Your task to perform on an android device: toggle notification dots Image 0: 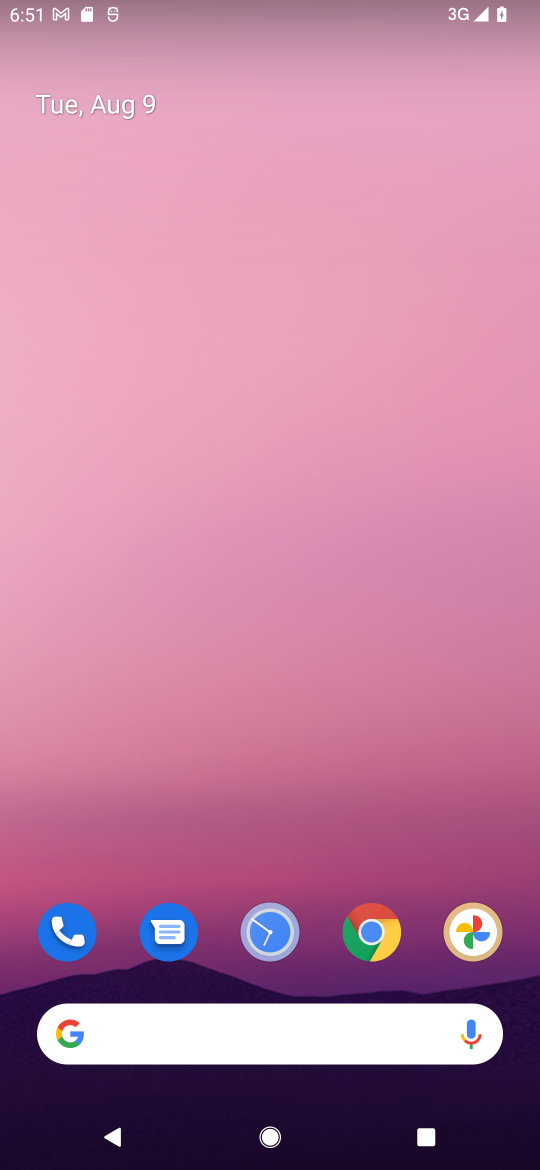
Step 0: drag from (205, 784) to (195, 305)
Your task to perform on an android device: toggle notification dots Image 1: 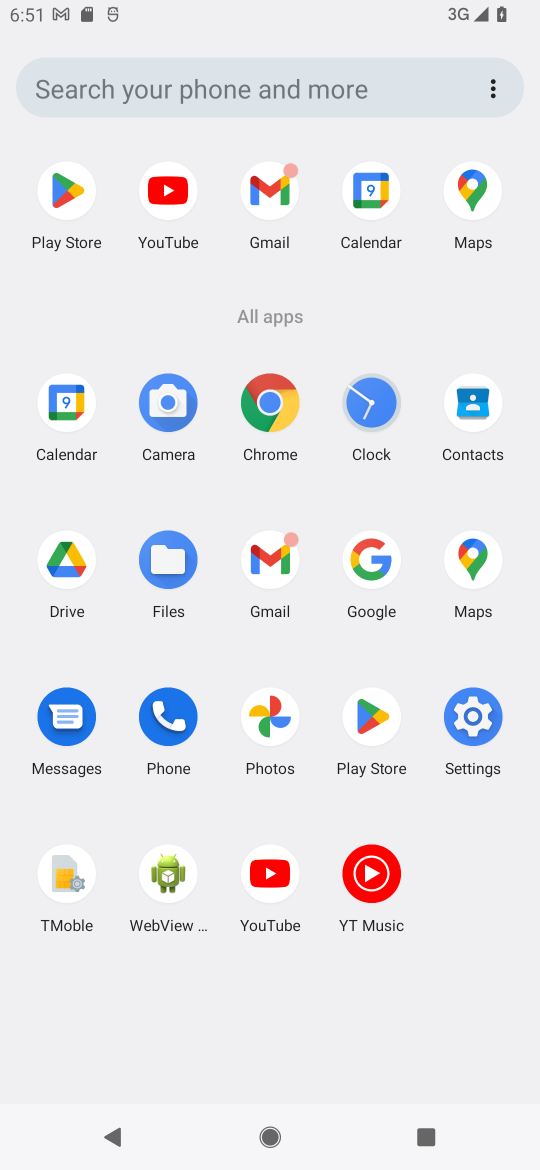
Step 1: click (479, 759)
Your task to perform on an android device: toggle notification dots Image 2: 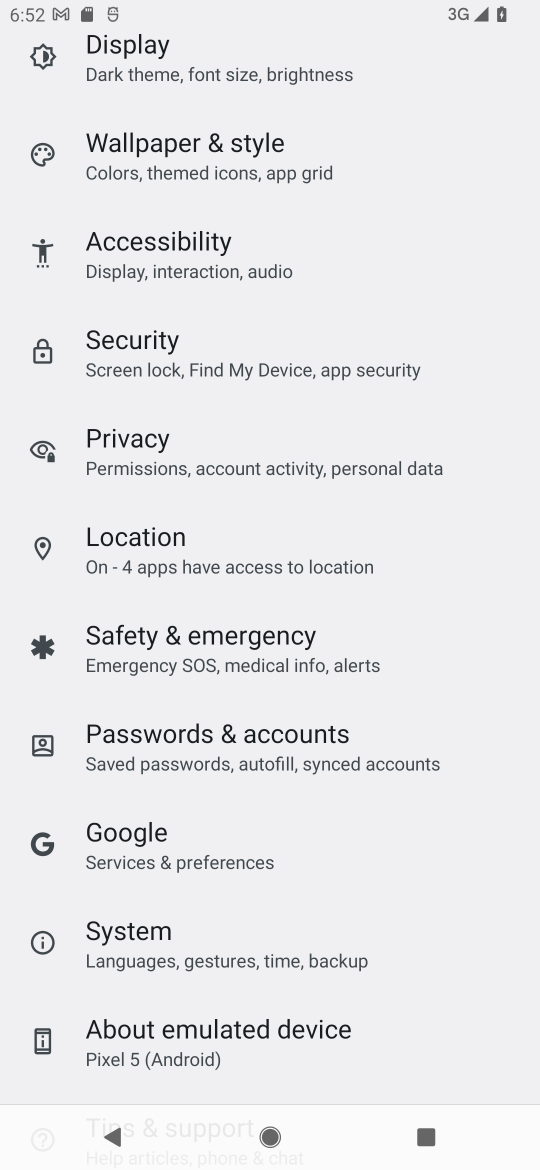
Step 2: drag from (361, 342) to (324, 681)
Your task to perform on an android device: toggle notification dots Image 3: 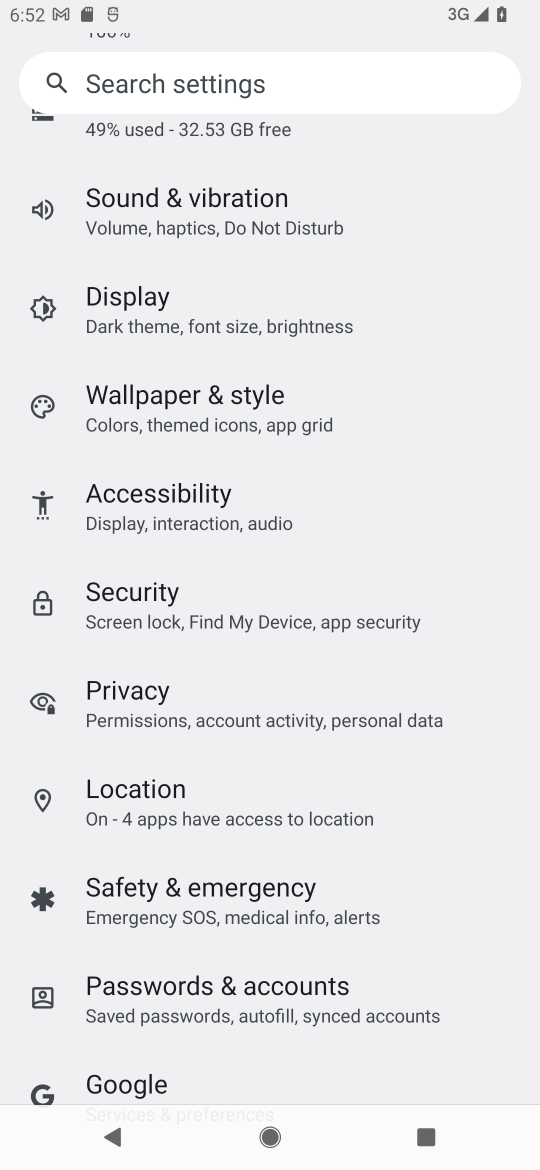
Step 3: drag from (296, 304) to (324, 602)
Your task to perform on an android device: toggle notification dots Image 4: 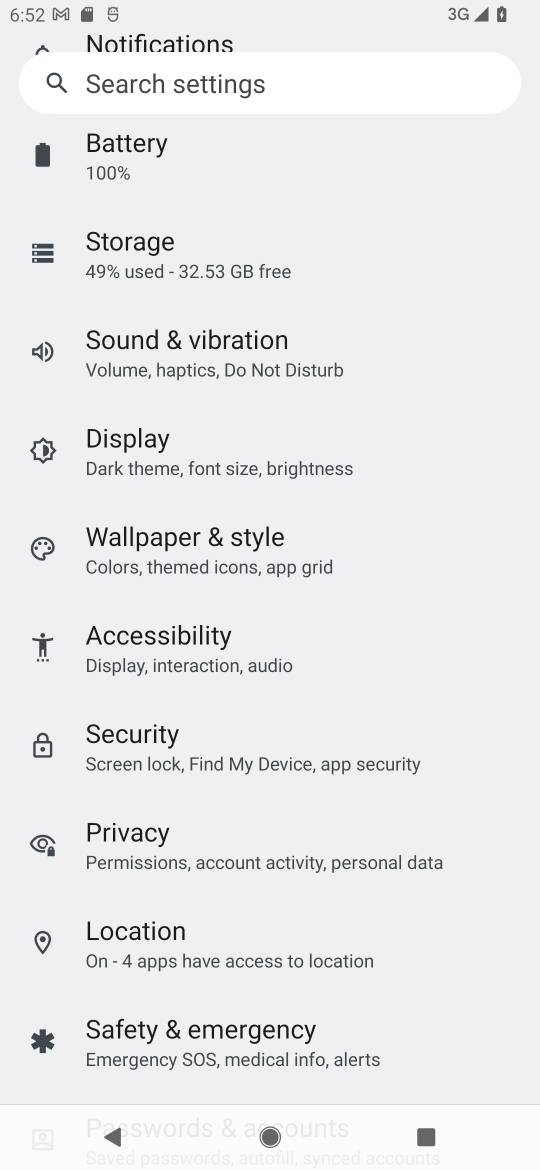
Step 4: drag from (295, 330) to (317, 691)
Your task to perform on an android device: toggle notification dots Image 5: 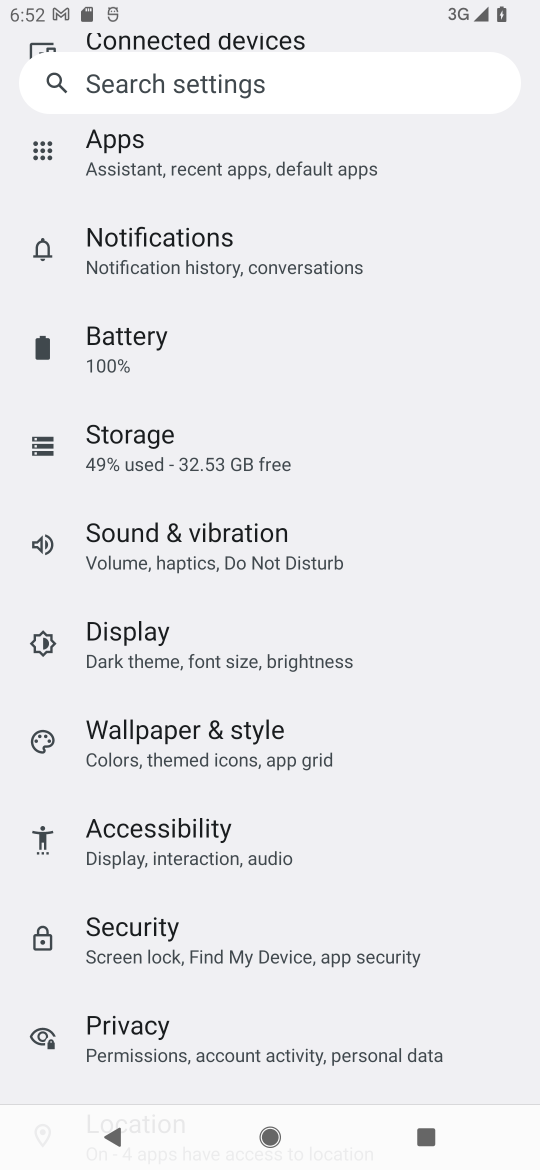
Step 5: click (276, 275)
Your task to perform on an android device: toggle notification dots Image 6: 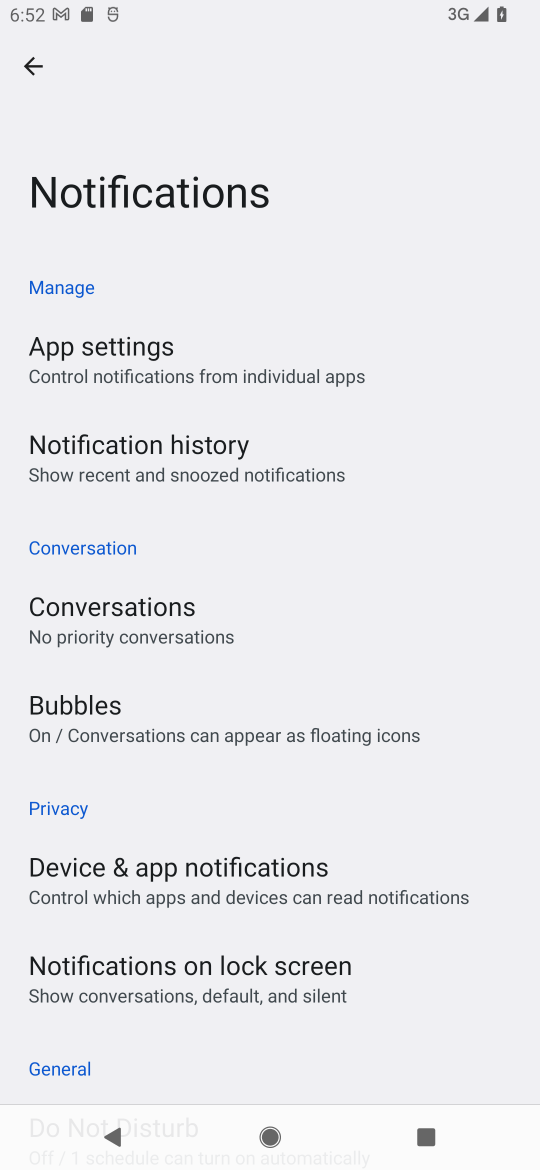
Step 6: drag from (197, 898) to (183, 296)
Your task to perform on an android device: toggle notification dots Image 7: 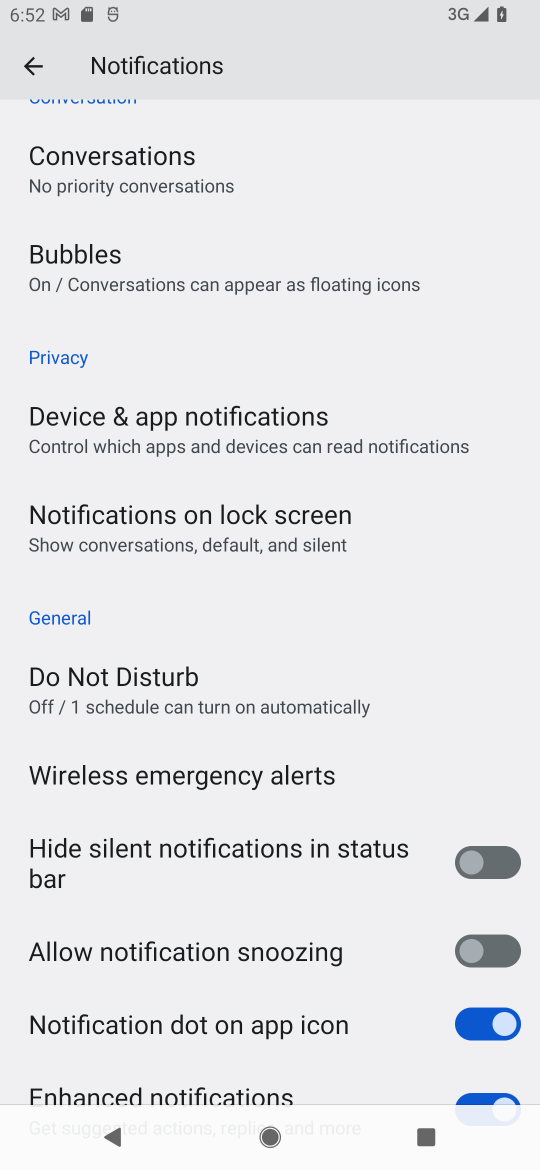
Step 7: drag from (249, 939) to (259, 628)
Your task to perform on an android device: toggle notification dots Image 8: 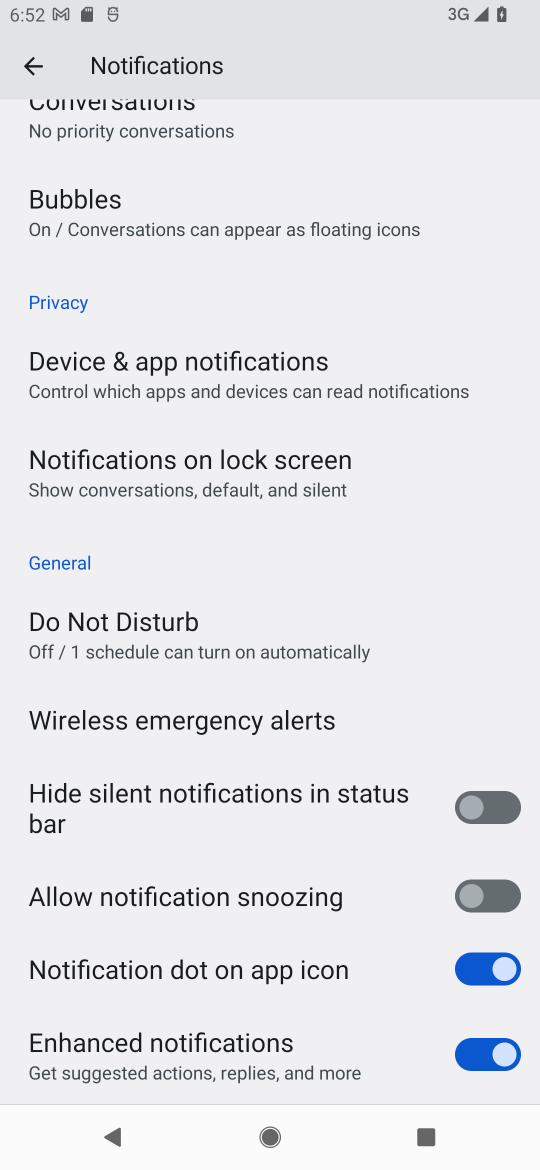
Step 8: click (305, 978)
Your task to perform on an android device: toggle notification dots Image 9: 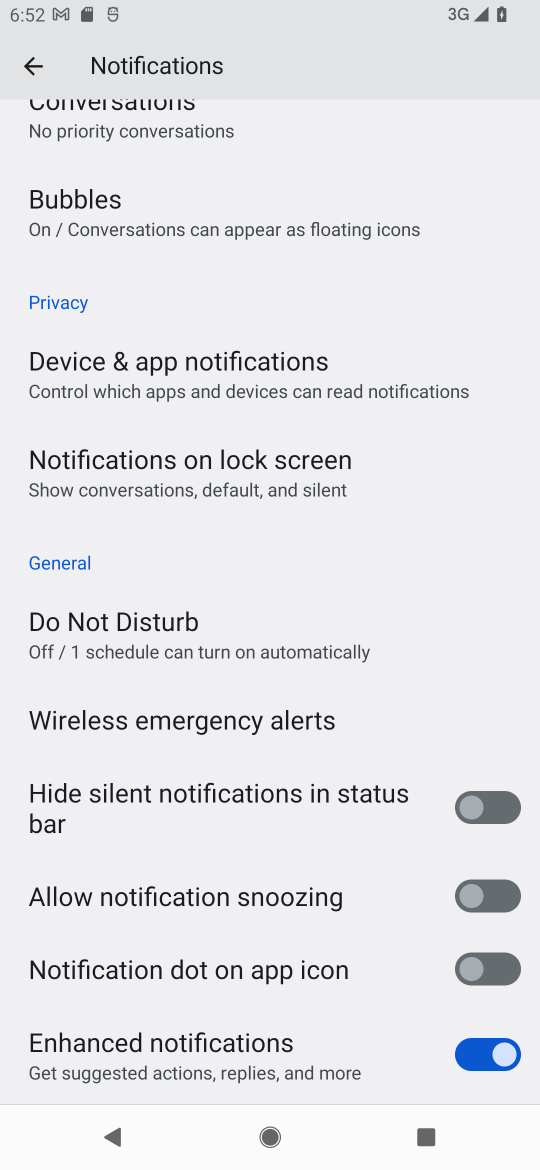
Step 9: task complete